Your task to perform on an android device: open a bookmark in the chrome app Image 0: 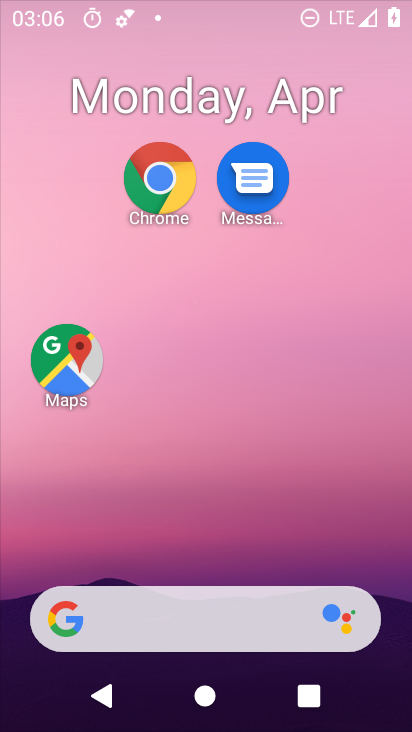
Step 0: drag from (238, 575) to (248, 41)
Your task to perform on an android device: open a bookmark in the chrome app Image 1: 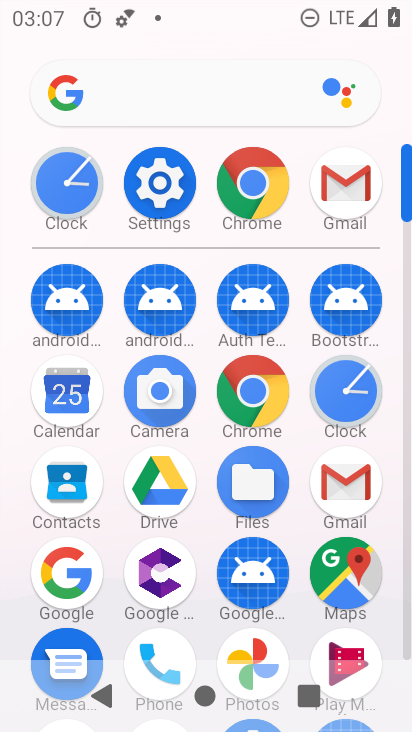
Step 1: click (243, 379)
Your task to perform on an android device: open a bookmark in the chrome app Image 2: 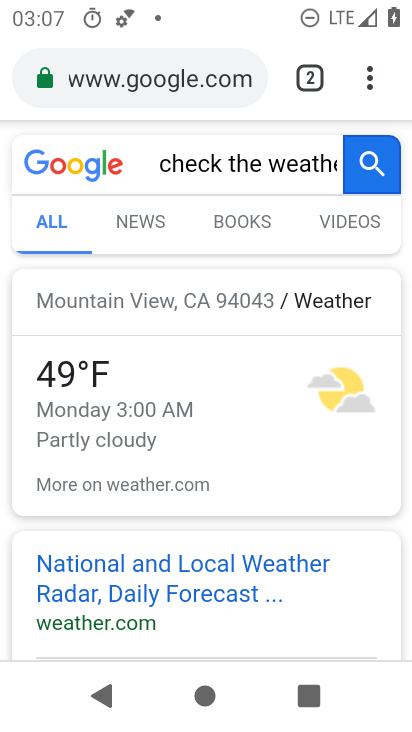
Step 2: task complete